Your task to perform on an android device: Add "sony triple a" to the cart on target.com Image 0: 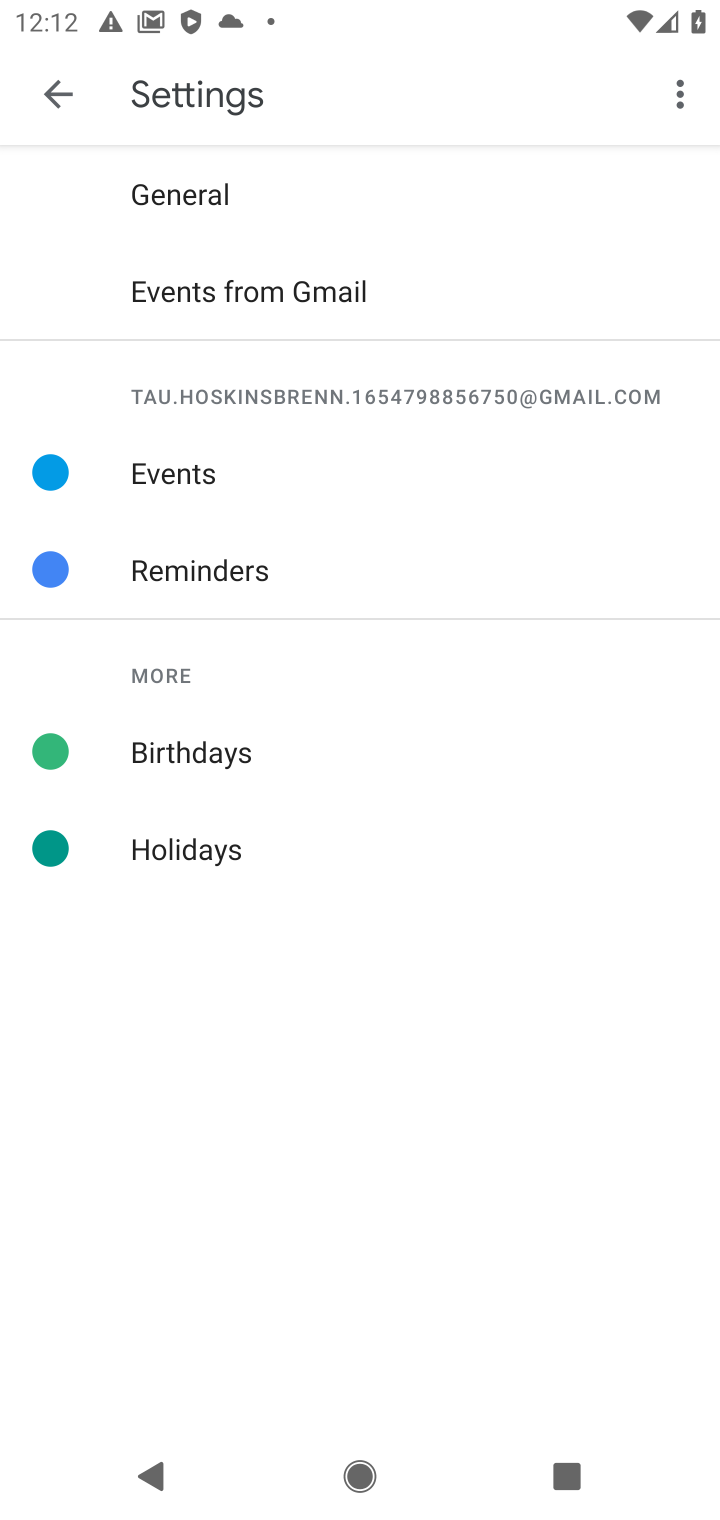
Step 0: press home button
Your task to perform on an android device: Add "sony triple a" to the cart on target.com Image 1: 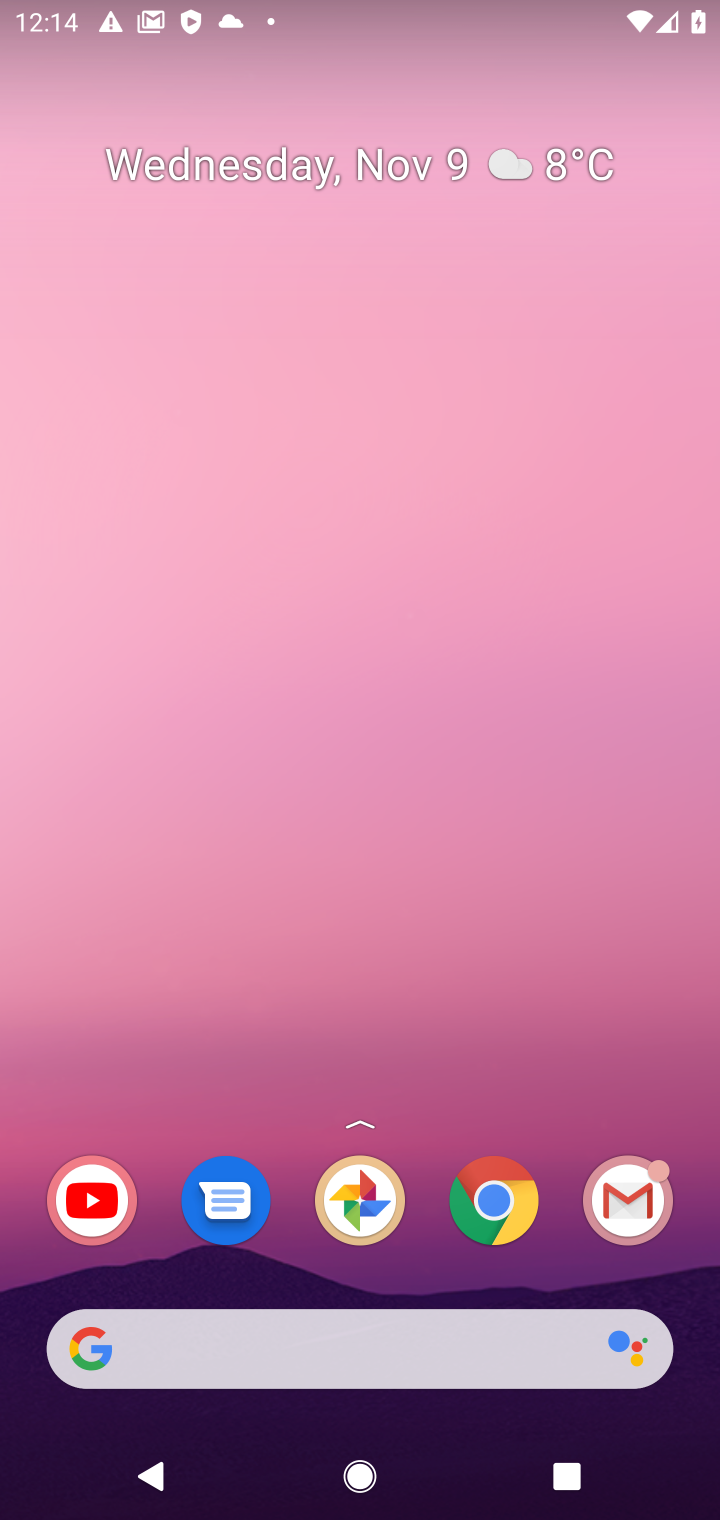
Step 1: click (204, 1366)
Your task to perform on an android device: Add "sony triple a" to the cart on target.com Image 2: 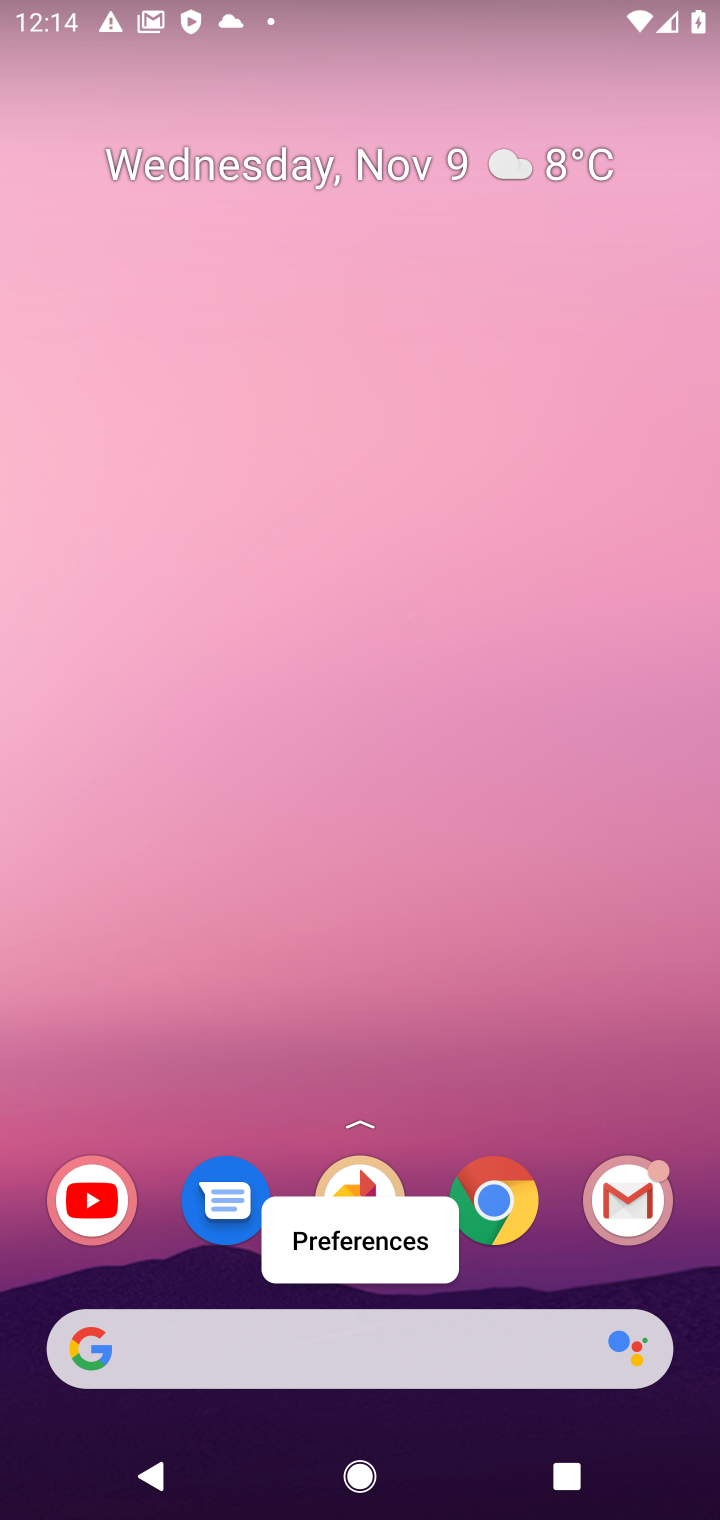
Step 2: task complete